Your task to perform on an android device: turn on notifications settings in the gmail app Image 0: 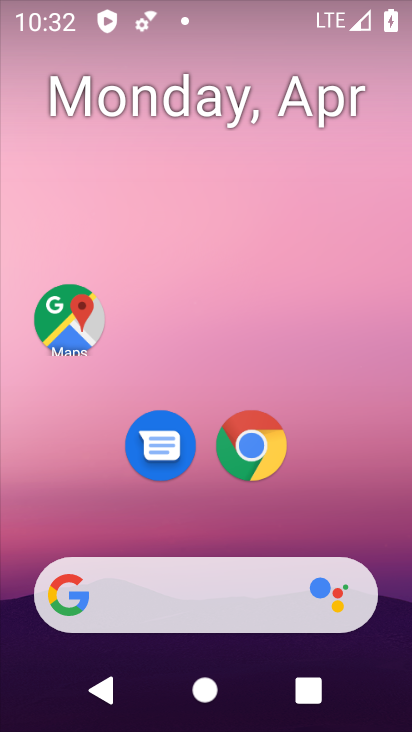
Step 0: drag from (226, 559) to (295, 322)
Your task to perform on an android device: turn on notifications settings in the gmail app Image 1: 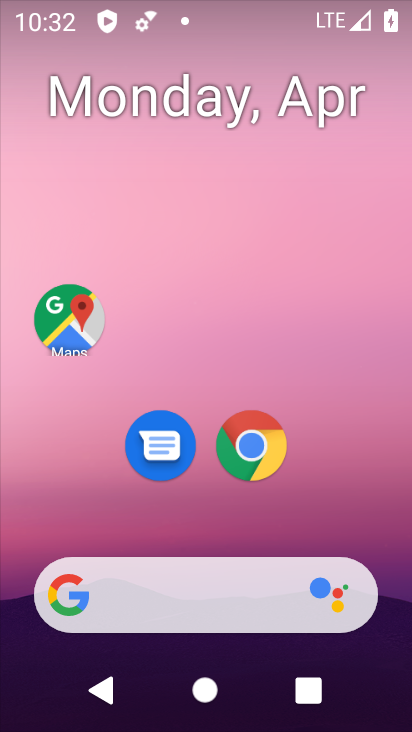
Step 1: drag from (167, 551) to (271, 179)
Your task to perform on an android device: turn on notifications settings in the gmail app Image 2: 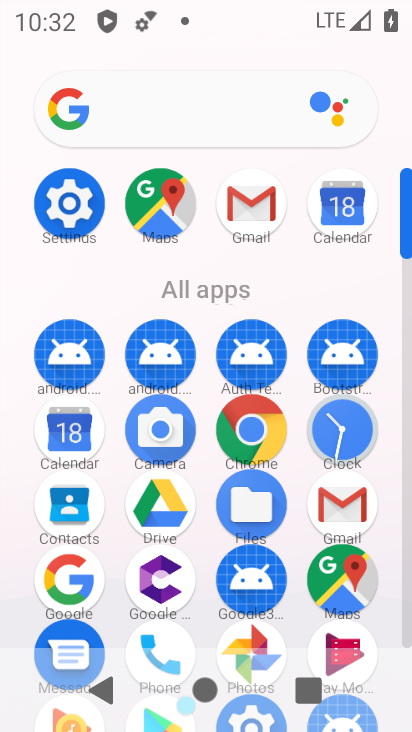
Step 2: click (357, 511)
Your task to perform on an android device: turn on notifications settings in the gmail app Image 3: 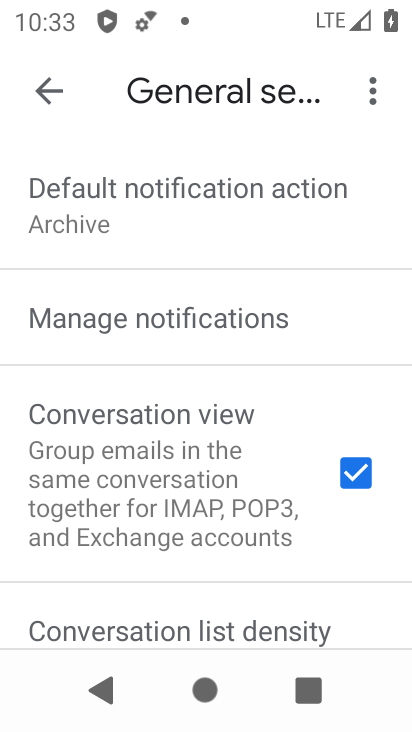
Step 3: click (199, 322)
Your task to perform on an android device: turn on notifications settings in the gmail app Image 4: 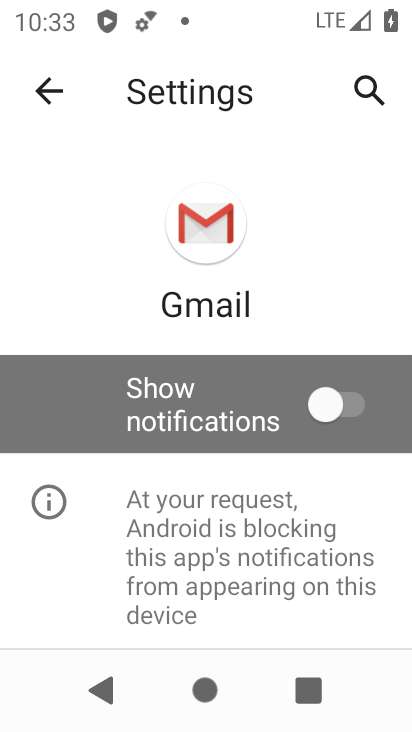
Step 4: click (347, 409)
Your task to perform on an android device: turn on notifications settings in the gmail app Image 5: 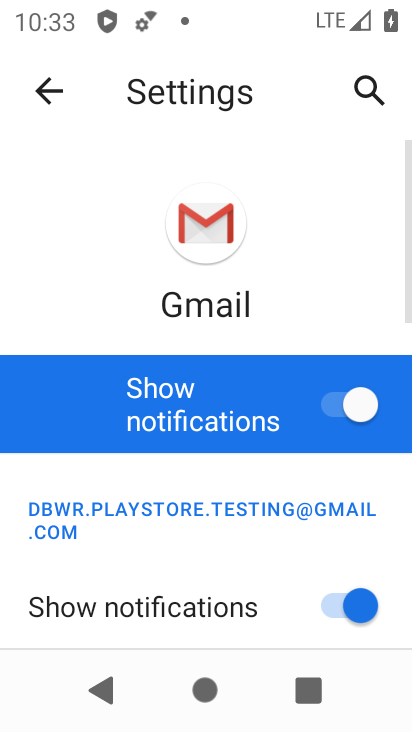
Step 5: task complete